Your task to perform on an android device: Turn off the flashlight Image 0: 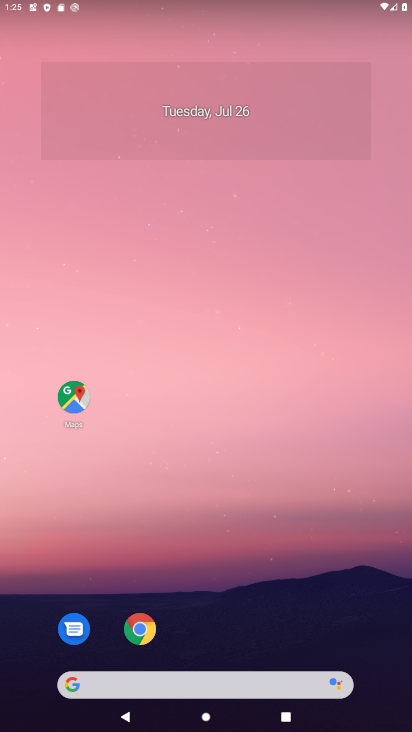
Step 0: drag from (217, 631) to (205, 270)
Your task to perform on an android device: Turn off the flashlight Image 1: 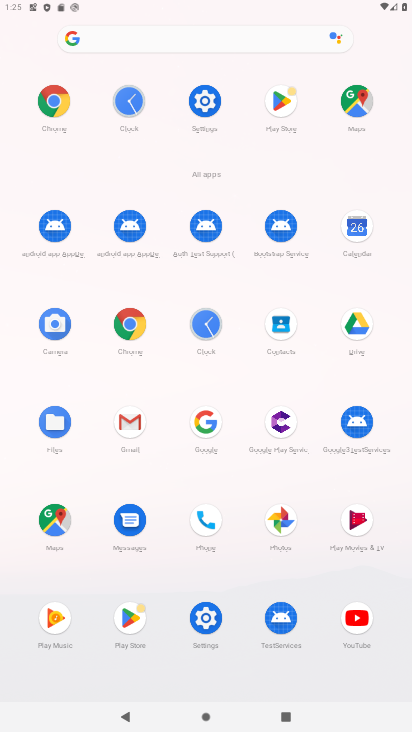
Step 1: click (209, 620)
Your task to perform on an android device: Turn off the flashlight Image 2: 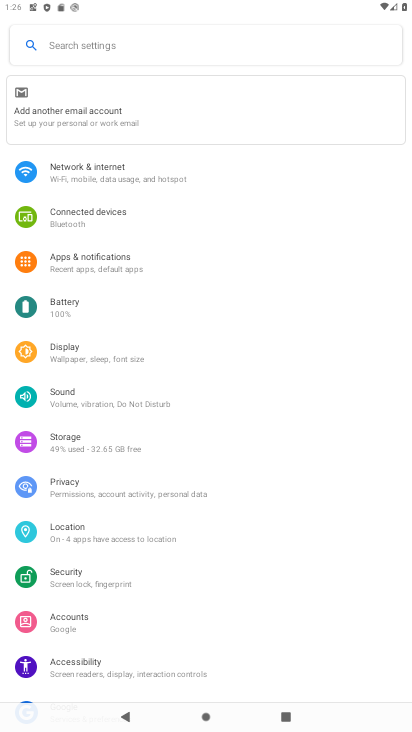
Step 2: task complete